Your task to perform on an android device: choose inbox layout in the gmail app Image 0: 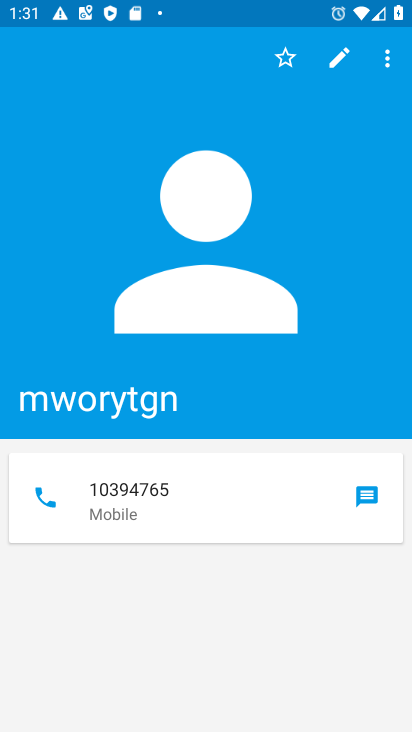
Step 0: press home button
Your task to perform on an android device: choose inbox layout in the gmail app Image 1: 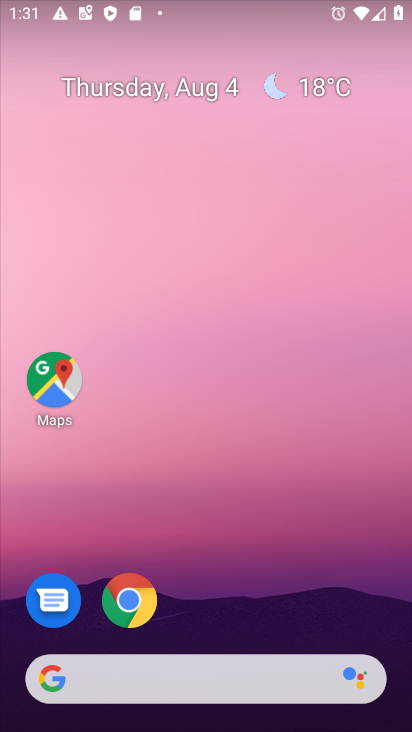
Step 1: drag from (155, 676) to (336, 150)
Your task to perform on an android device: choose inbox layout in the gmail app Image 2: 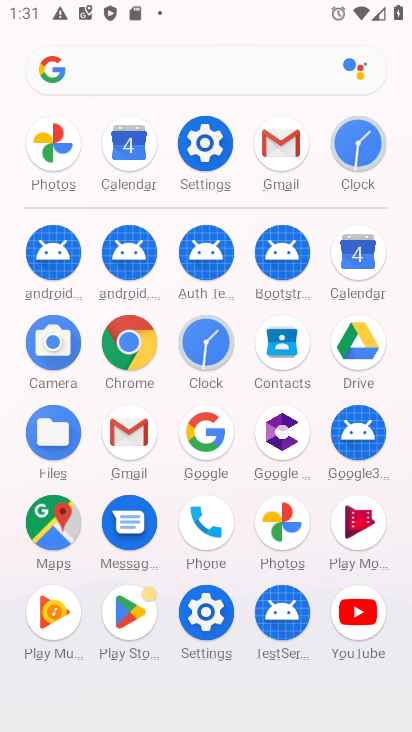
Step 2: click (278, 157)
Your task to perform on an android device: choose inbox layout in the gmail app Image 3: 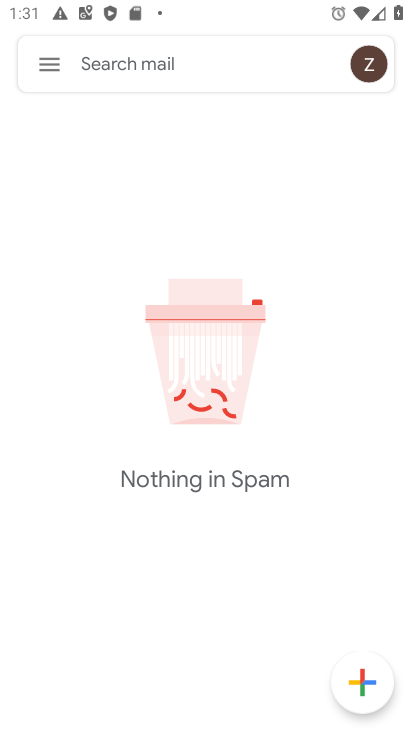
Step 3: click (47, 65)
Your task to perform on an android device: choose inbox layout in the gmail app Image 4: 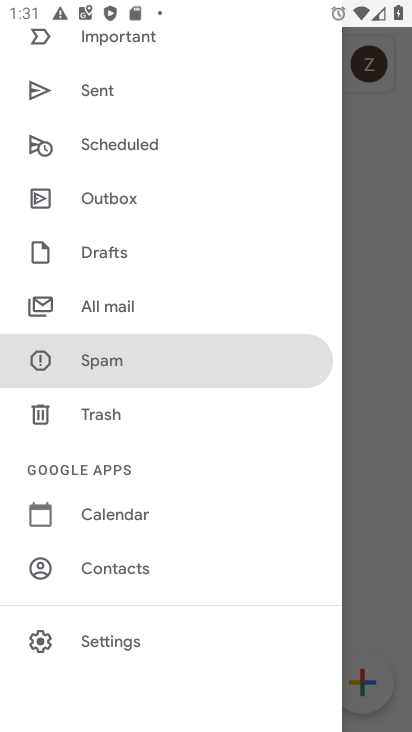
Step 4: click (124, 642)
Your task to perform on an android device: choose inbox layout in the gmail app Image 5: 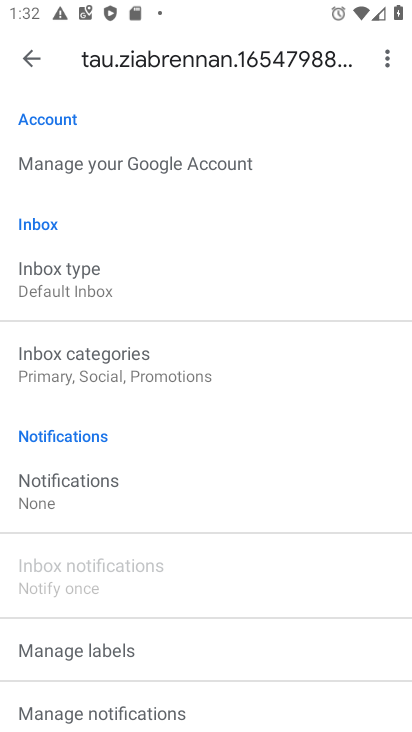
Step 5: click (94, 297)
Your task to perform on an android device: choose inbox layout in the gmail app Image 6: 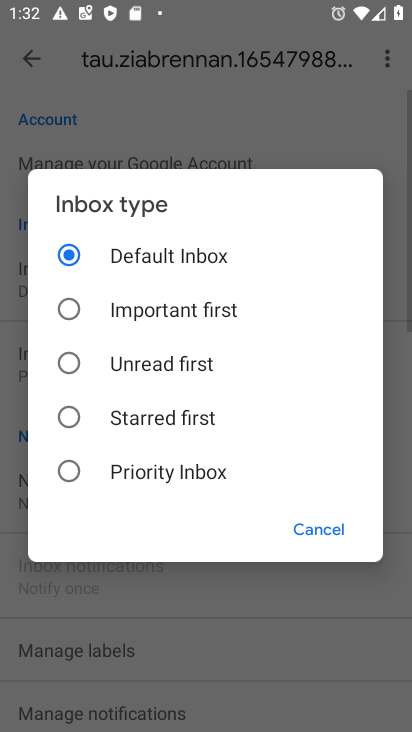
Step 6: click (72, 474)
Your task to perform on an android device: choose inbox layout in the gmail app Image 7: 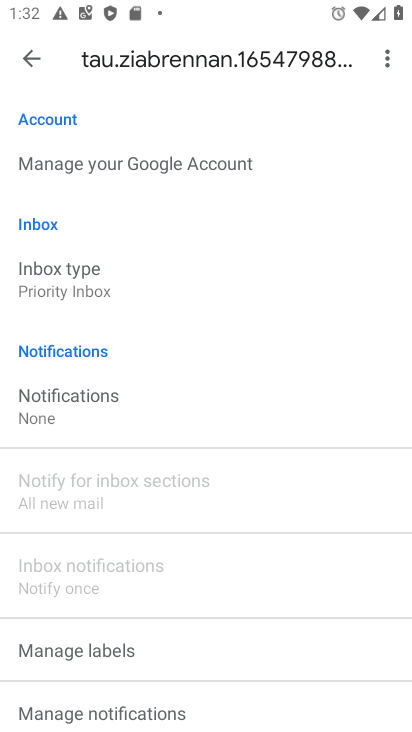
Step 7: task complete